Your task to perform on an android device: turn off data saver in the chrome app Image 0: 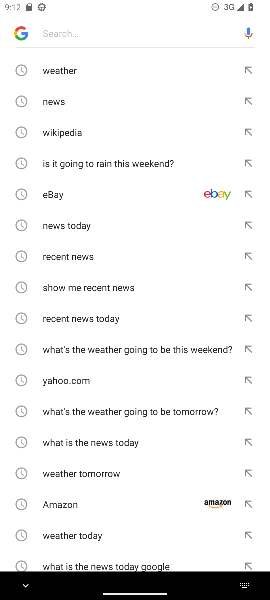
Step 0: press home button
Your task to perform on an android device: turn off data saver in the chrome app Image 1: 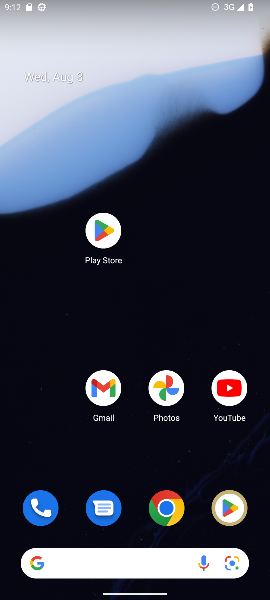
Step 1: click (162, 519)
Your task to perform on an android device: turn off data saver in the chrome app Image 2: 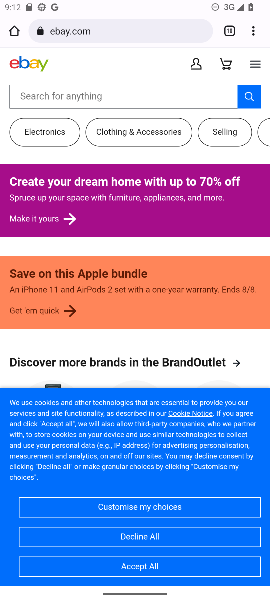
Step 2: drag from (251, 27) to (155, 394)
Your task to perform on an android device: turn off data saver in the chrome app Image 3: 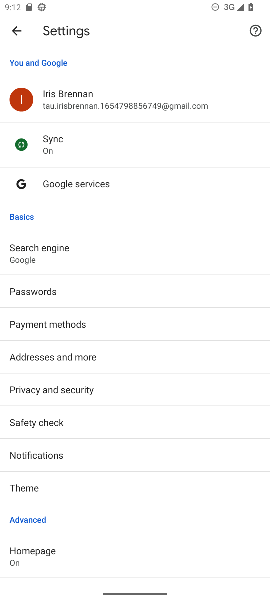
Step 3: drag from (95, 485) to (103, 91)
Your task to perform on an android device: turn off data saver in the chrome app Image 4: 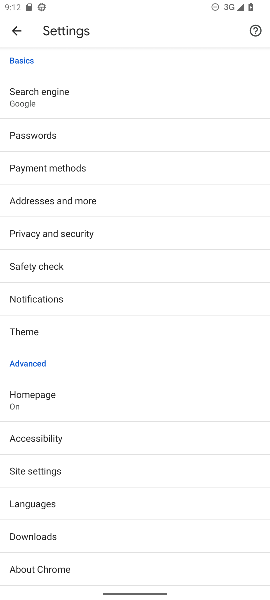
Step 4: click (17, 461)
Your task to perform on an android device: turn off data saver in the chrome app Image 5: 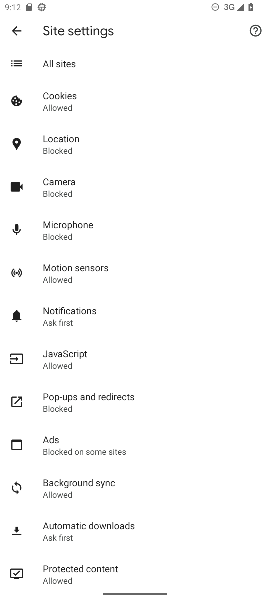
Step 5: click (26, 44)
Your task to perform on an android device: turn off data saver in the chrome app Image 6: 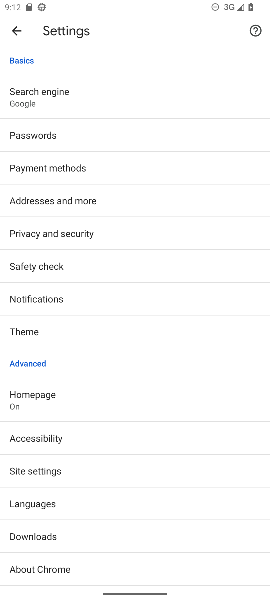
Step 6: click (96, 270)
Your task to perform on an android device: turn off data saver in the chrome app Image 7: 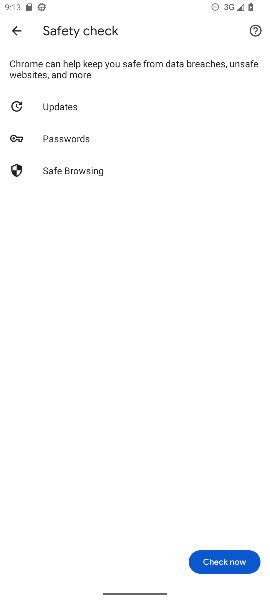
Step 7: click (8, 33)
Your task to perform on an android device: turn off data saver in the chrome app Image 8: 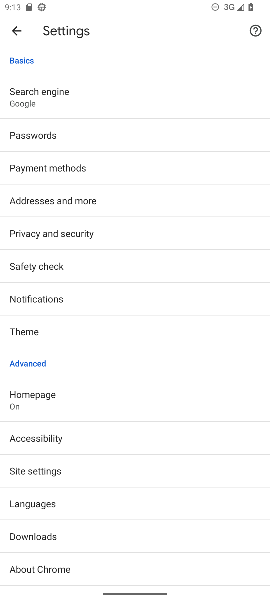
Step 8: click (44, 257)
Your task to perform on an android device: turn off data saver in the chrome app Image 9: 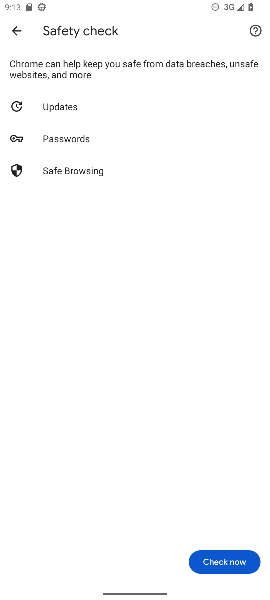
Step 9: click (9, 36)
Your task to perform on an android device: turn off data saver in the chrome app Image 10: 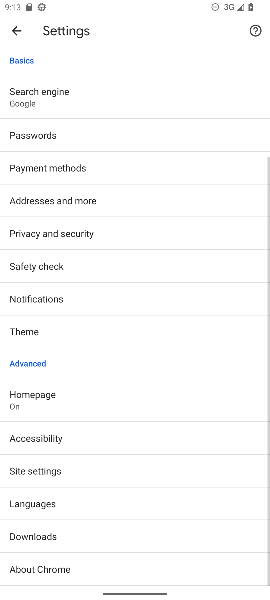
Step 10: click (42, 226)
Your task to perform on an android device: turn off data saver in the chrome app Image 11: 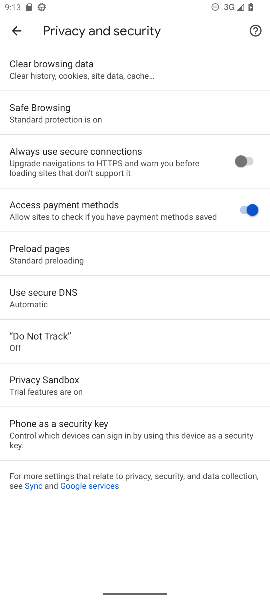
Step 11: task complete